Your task to perform on an android device: Go to eBay Image 0: 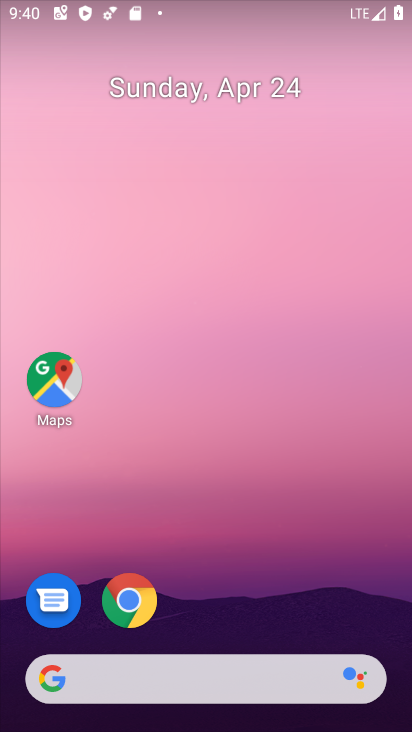
Step 0: task complete